Your task to perform on an android device: Go to Google maps Image 0: 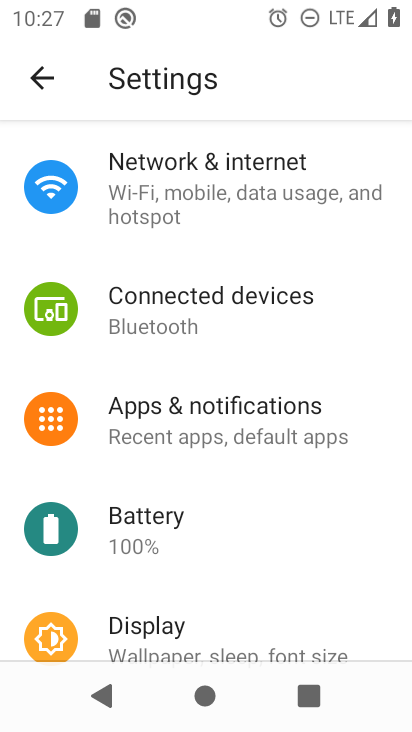
Step 0: press home button
Your task to perform on an android device: Go to Google maps Image 1: 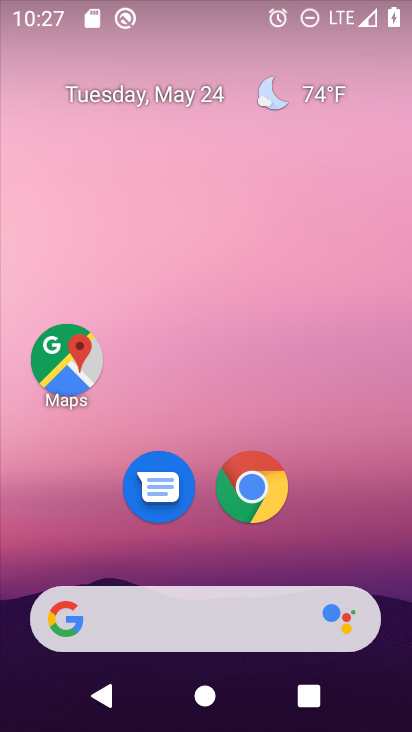
Step 1: click (68, 355)
Your task to perform on an android device: Go to Google maps Image 2: 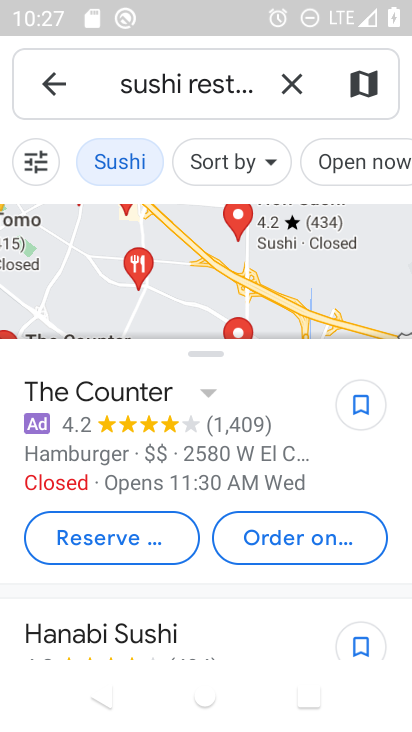
Step 2: task complete